Your task to perform on an android device: See recent photos Image 0: 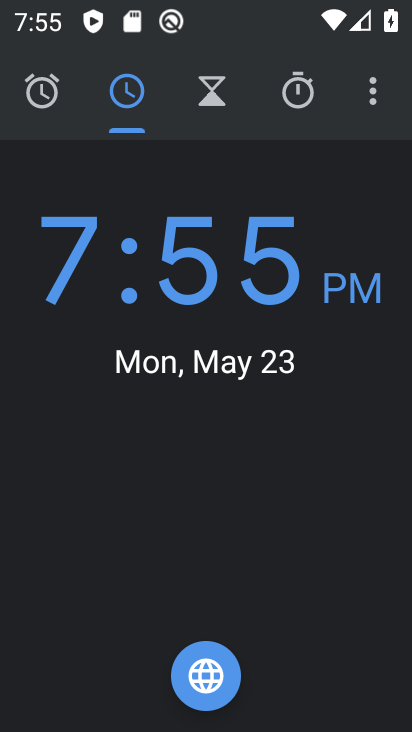
Step 0: press home button
Your task to perform on an android device: See recent photos Image 1: 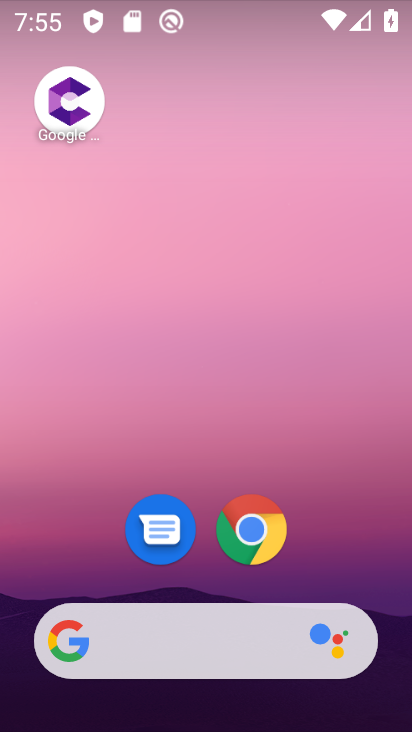
Step 1: drag from (202, 573) to (205, 160)
Your task to perform on an android device: See recent photos Image 2: 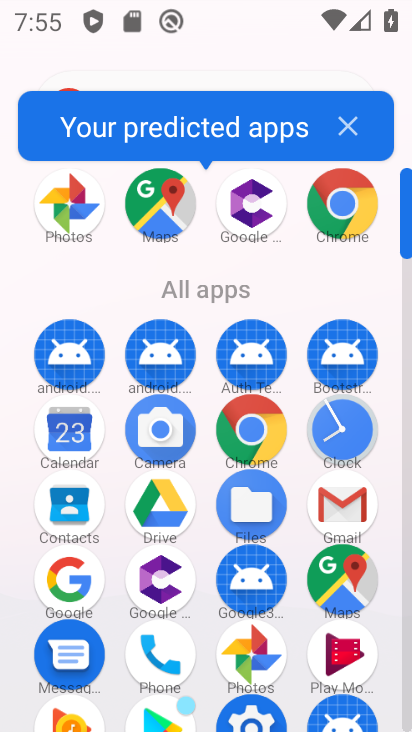
Step 2: click (82, 220)
Your task to perform on an android device: See recent photos Image 3: 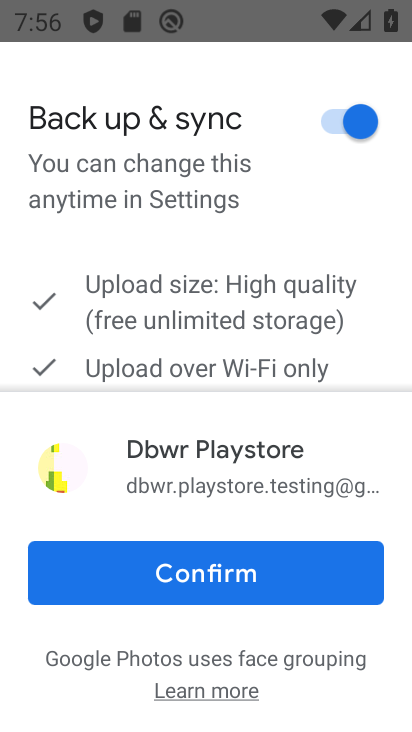
Step 3: click (297, 559)
Your task to perform on an android device: See recent photos Image 4: 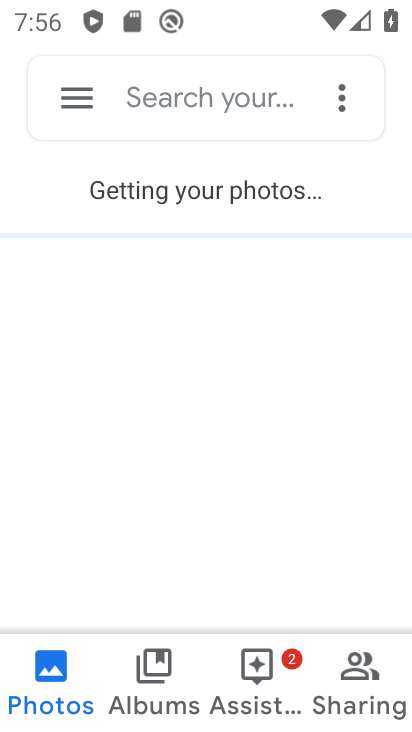
Step 4: drag from (234, 535) to (240, 308)
Your task to perform on an android device: See recent photos Image 5: 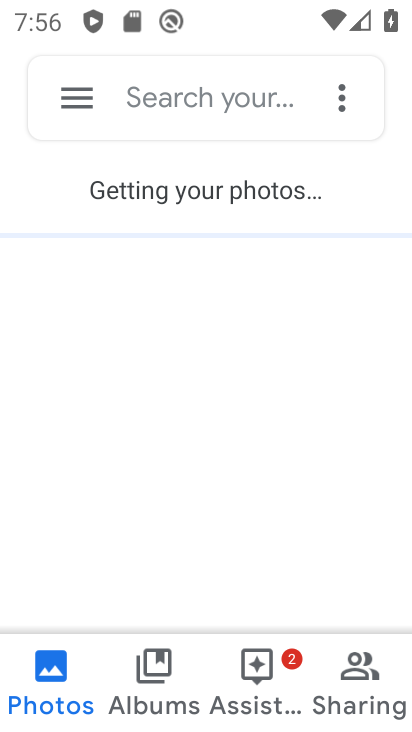
Step 5: click (57, 663)
Your task to perform on an android device: See recent photos Image 6: 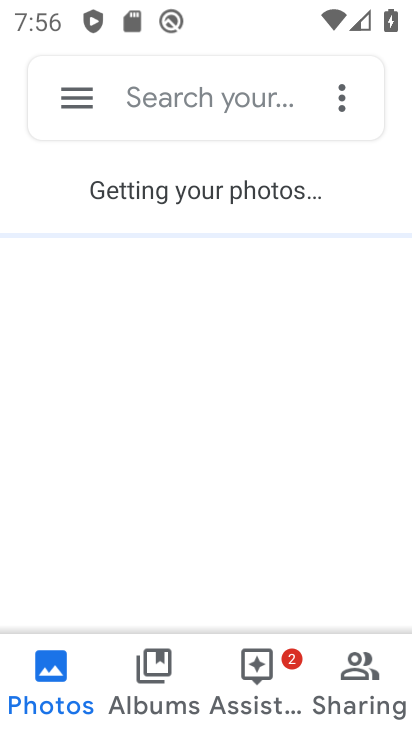
Step 6: task complete